Your task to perform on an android device: make emails show in primary in the gmail app Image 0: 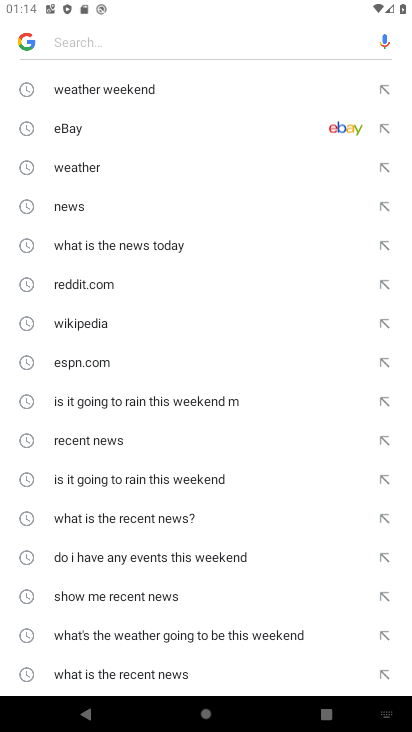
Step 0: press back button
Your task to perform on an android device: make emails show in primary in the gmail app Image 1: 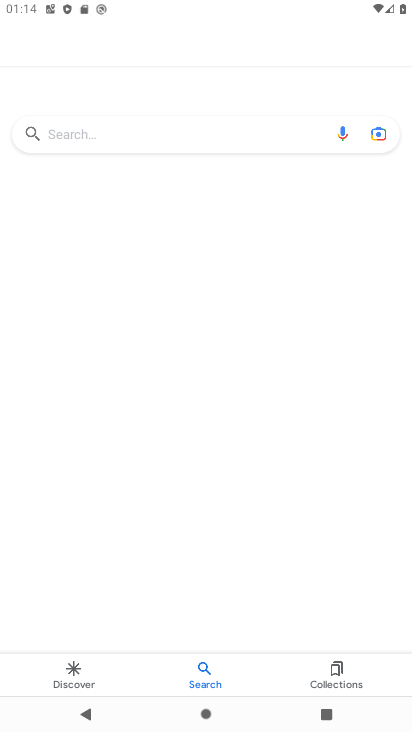
Step 1: press back button
Your task to perform on an android device: make emails show in primary in the gmail app Image 2: 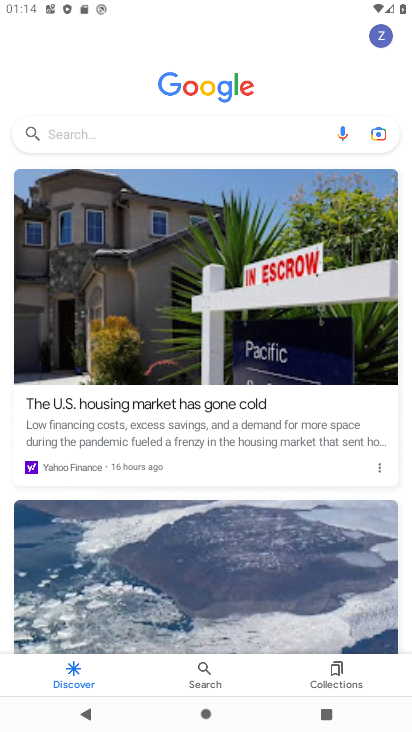
Step 2: press back button
Your task to perform on an android device: make emails show in primary in the gmail app Image 3: 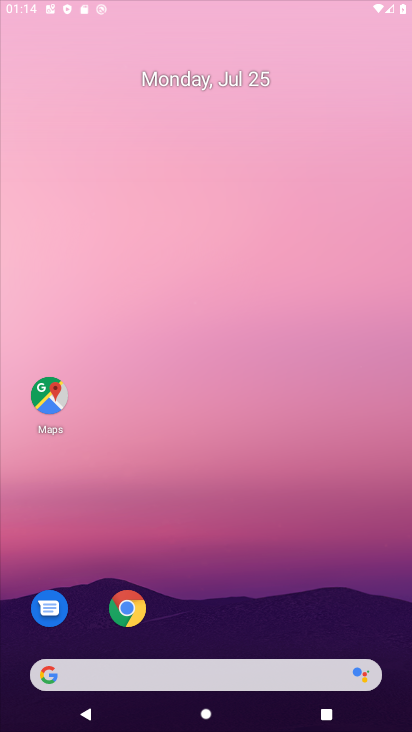
Step 3: press back button
Your task to perform on an android device: make emails show in primary in the gmail app Image 4: 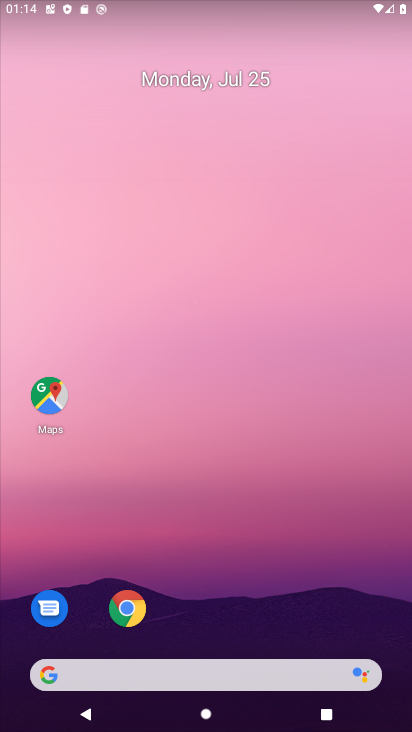
Step 4: drag from (193, 655) to (226, 2)
Your task to perform on an android device: make emails show in primary in the gmail app Image 5: 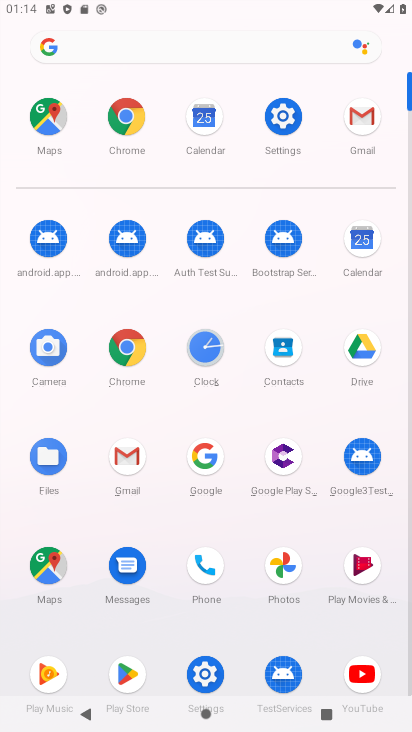
Step 5: click (112, 437)
Your task to perform on an android device: make emails show in primary in the gmail app Image 6: 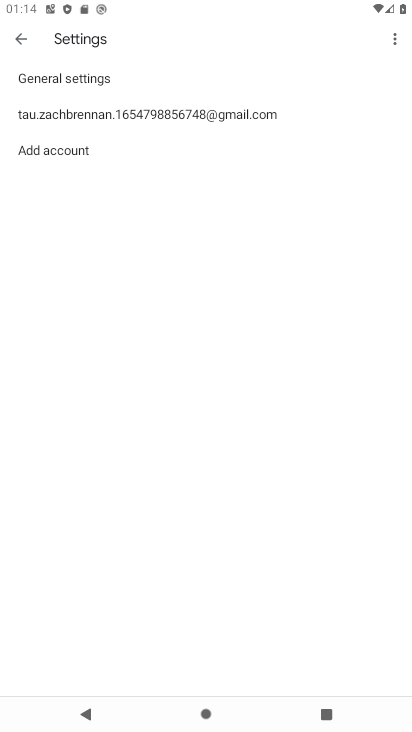
Step 6: click (48, 108)
Your task to perform on an android device: make emails show in primary in the gmail app Image 7: 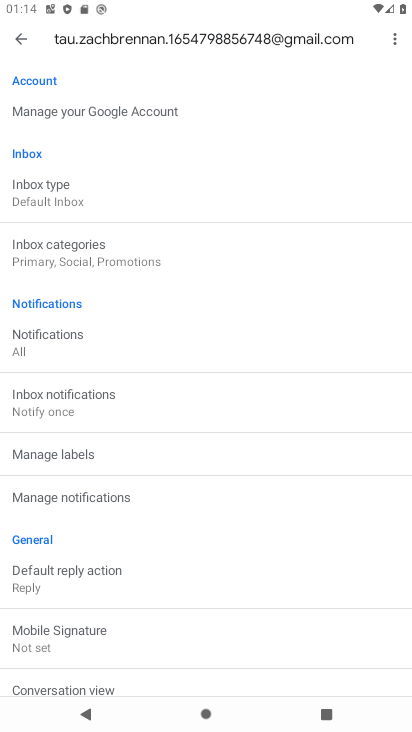
Step 7: click (17, 38)
Your task to perform on an android device: make emails show in primary in the gmail app Image 8: 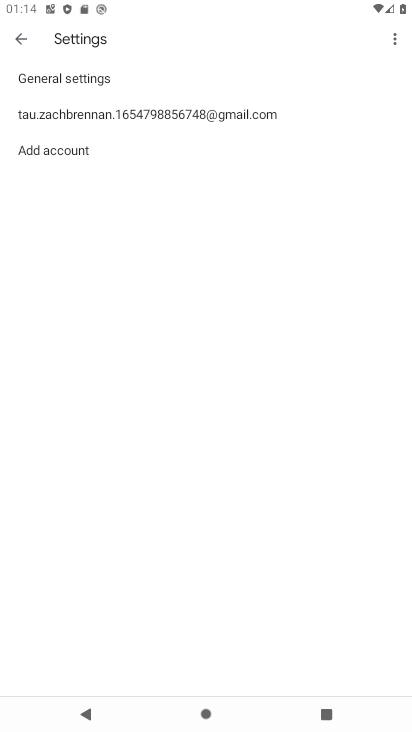
Step 8: click (17, 38)
Your task to perform on an android device: make emails show in primary in the gmail app Image 9: 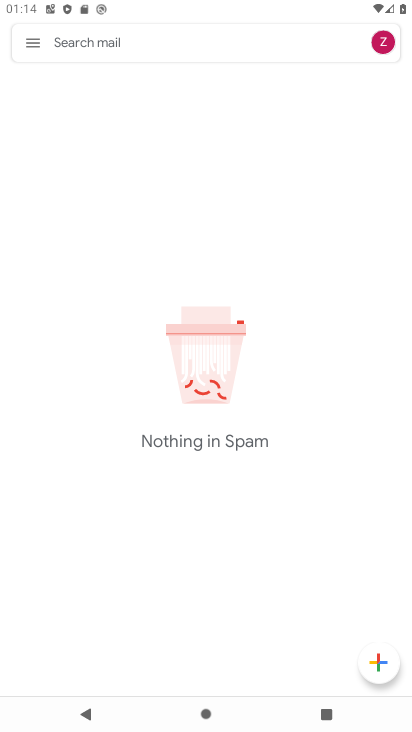
Step 9: click (24, 37)
Your task to perform on an android device: make emails show in primary in the gmail app Image 10: 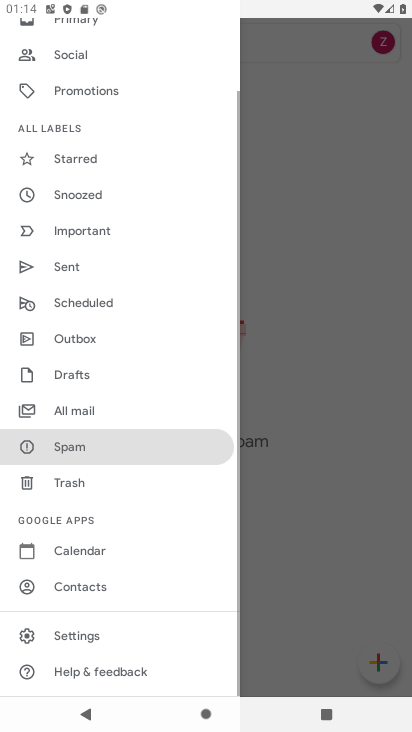
Step 10: drag from (108, 93) to (137, 477)
Your task to perform on an android device: make emails show in primary in the gmail app Image 11: 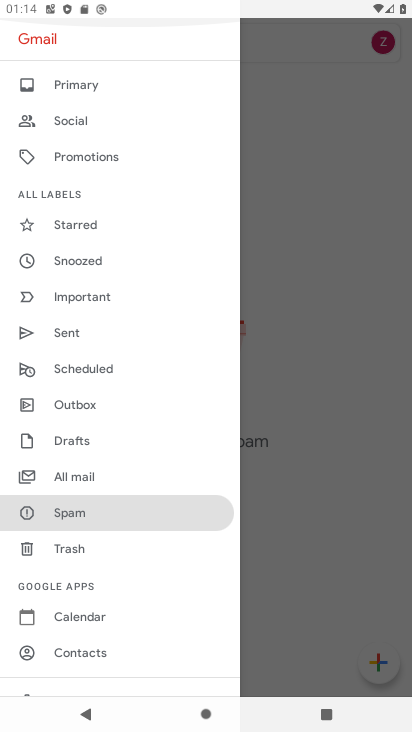
Step 11: click (93, 73)
Your task to perform on an android device: make emails show in primary in the gmail app Image 12: 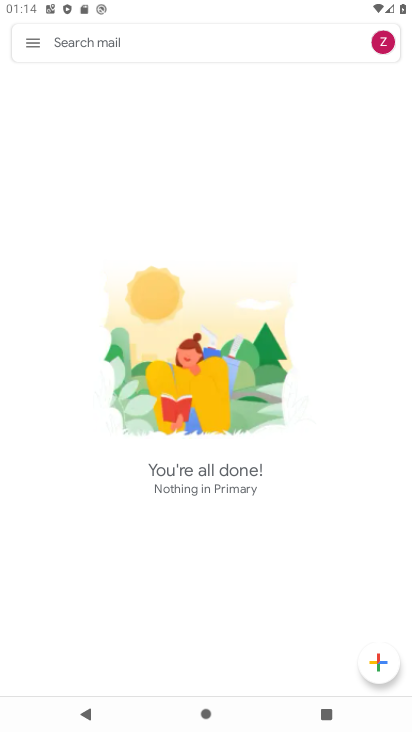
Step 12: task complete